Your task to perform on an android device: Open settings on Google Maps Image 0: 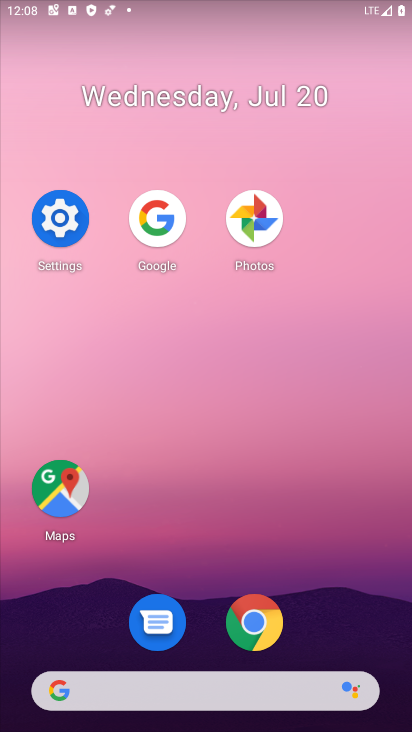
Step 0: click (52, 471)
Your task to perform on an android device: Open settings on Google Maps Image 1: 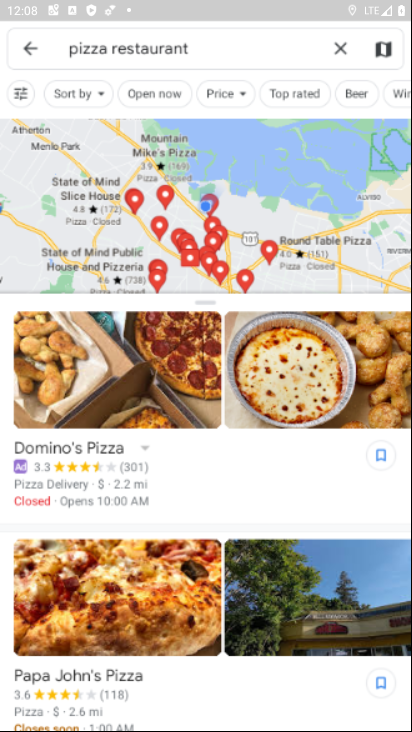
Step 1: click (33, 52)
Your task to perform on an android device: Open settings on Google Maps Image 2: 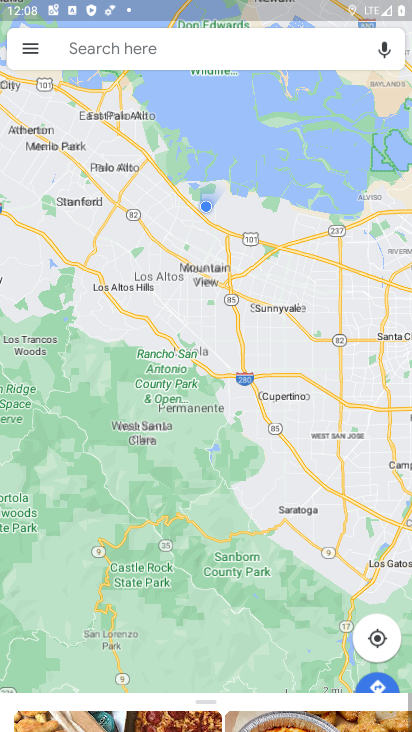
Step 2: click (33, 52)
Your task to perform on an android device: Open settings on Google Maps Image 3: 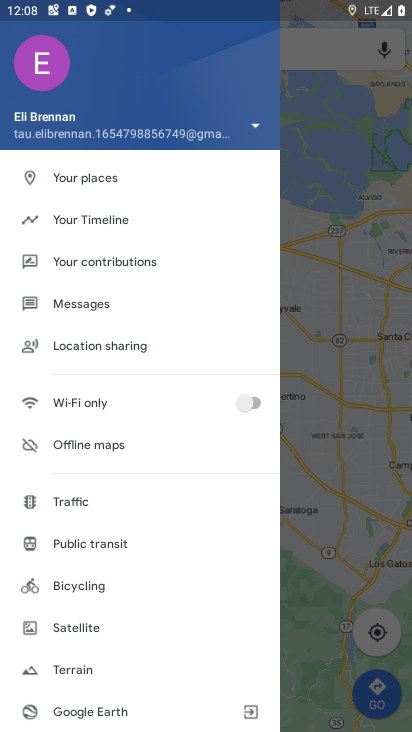
Step 3: drag from (92, 660) to (116, 331)
Your task to perform on an android device: Open settings on Google Maps Image 4: 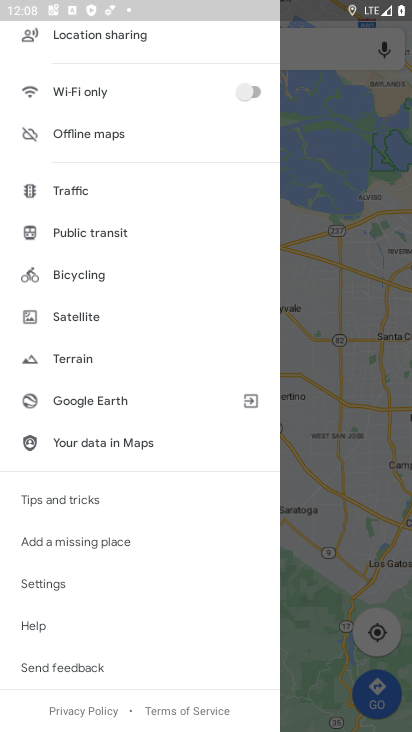
Step 4: click (81, 575)
Your task to perform on an android device: Open settings on Google Maps Image 5: 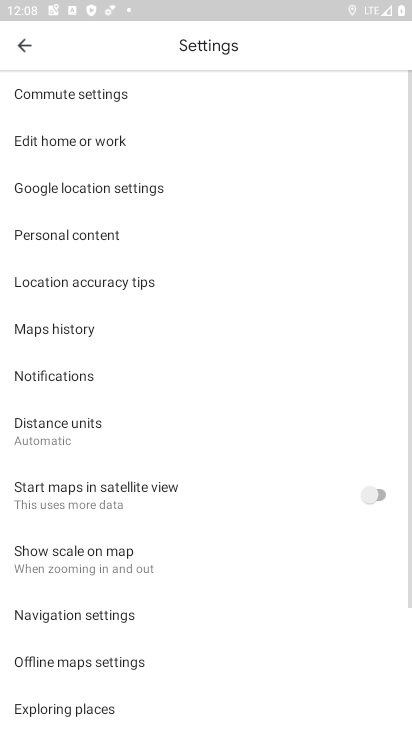
Step 5: task complete